Your task to perform on an android device: open chrome and create a bookmark for the current page Image 0: 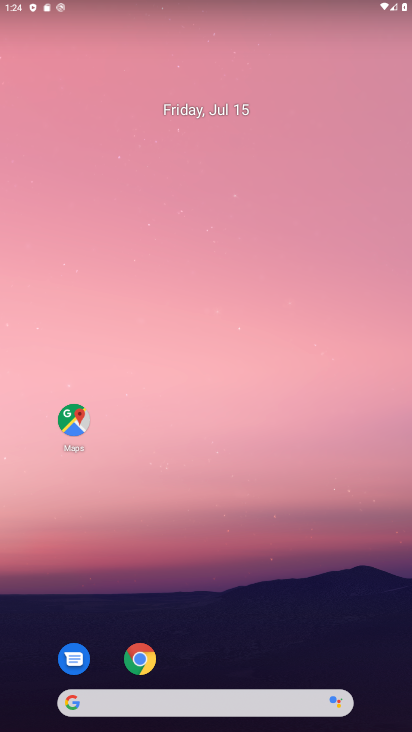
Step 0: click (133, 664)
Your task to perform on an android device: open chrome and create a bookmark for the current page Image 1: 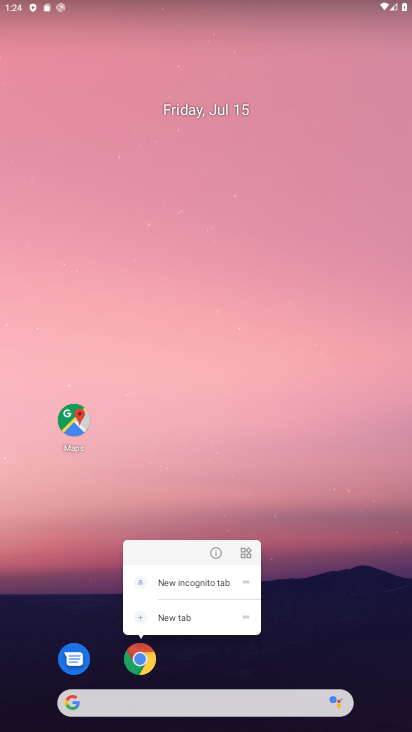
Step 1: click (103, 666)
Your task to perform on an android device: open chrome and create a bookmark for the current page Image 2: 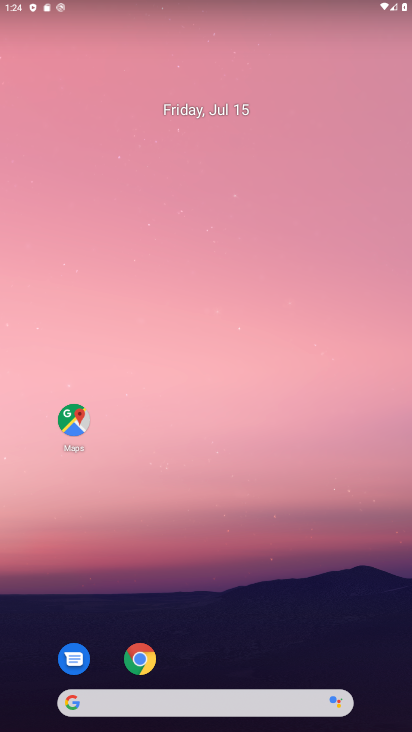
Step 2: click (125, 660)
Your task to perform on an android device: open chrome and create a bookmark for the current page Image 3: 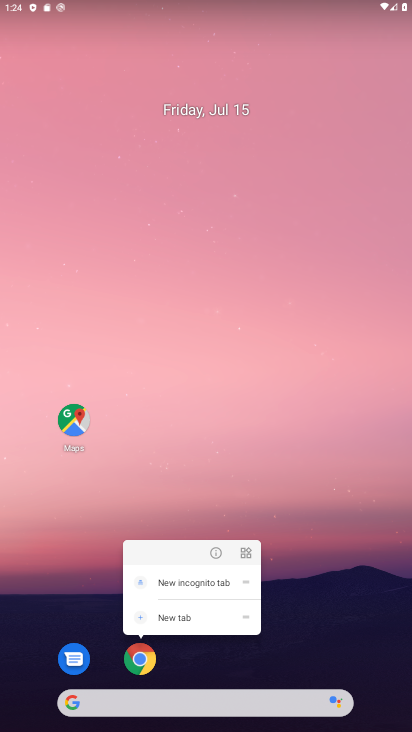
Step 3: click (141, 660)
Your task to perform on an android device: open chrome and create a bookmark for the current page Image 4: 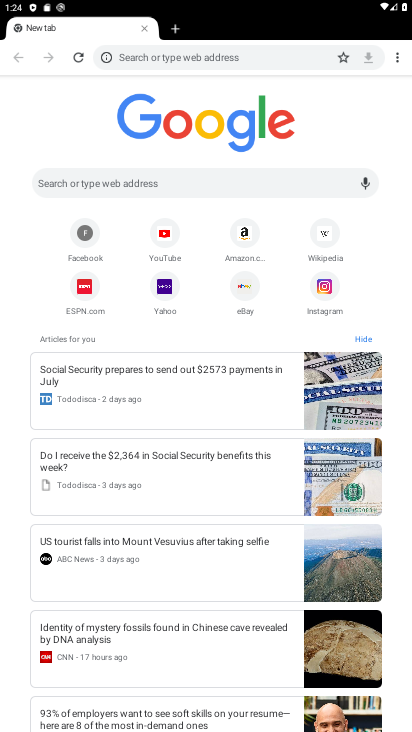
Step 4: click (339, 56)
Your task to perform on an android device: open chrome and create a bookmark for the current page Image 5: 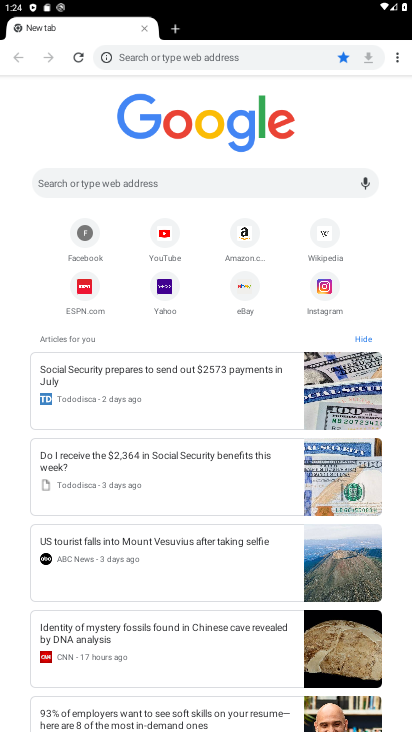
Step 5: task complete